Your task to perform on an android device: What's on my calendar today? Image 0: 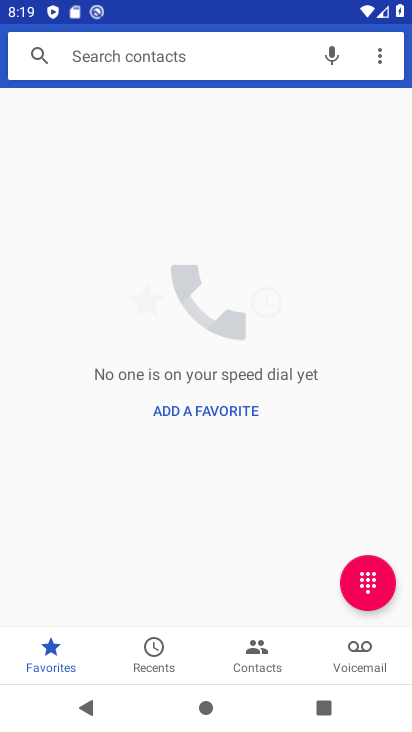
Step 0: press home button
Your task to perform on an android device: What's on my calendar today? Image 1: 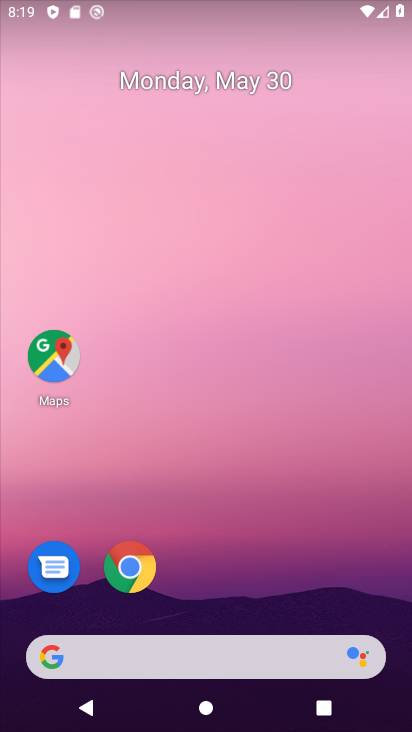
Step 1: click (263, 85)
Your task to perform on an android device: What's on my calendar today? Image 2: 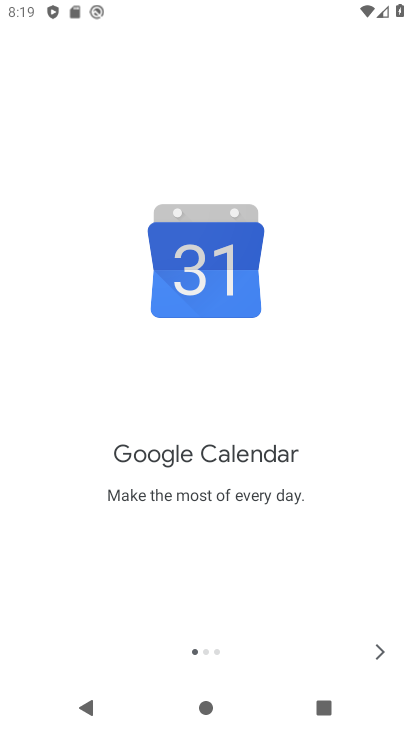
Step 2: click (391, 648)
Your task to perform on an android device: What's on my calendar today? Image 3: 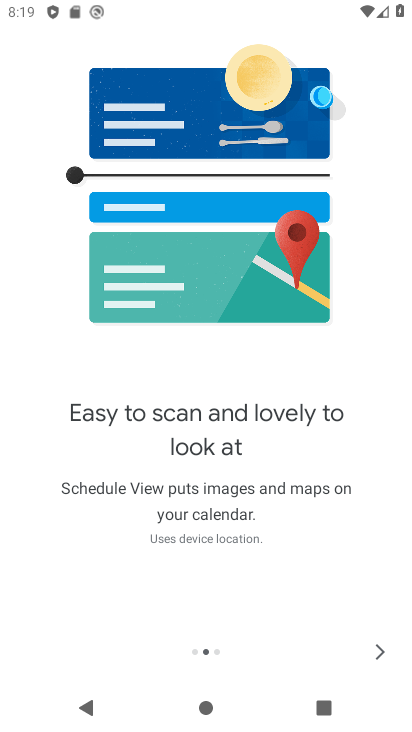
Step 3: click (391, 648)
Your task to perform on an android device: What's on my calendar today? Image 4: 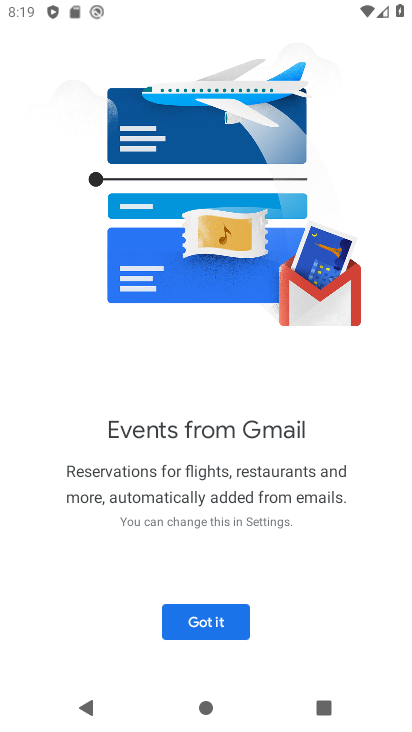
Step 4: click (193, 629)
Your task to perform on an android device: What's on my calendar today? Image 5: 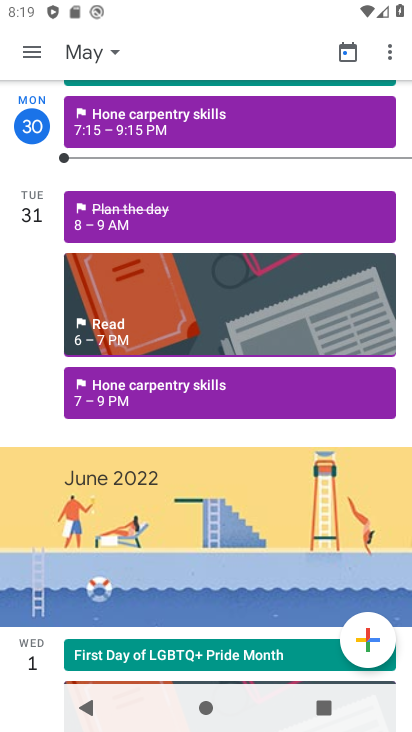
Step 5: task complete